Your task to perform on an android device: turn smart compose on in the gmail app Image 0: 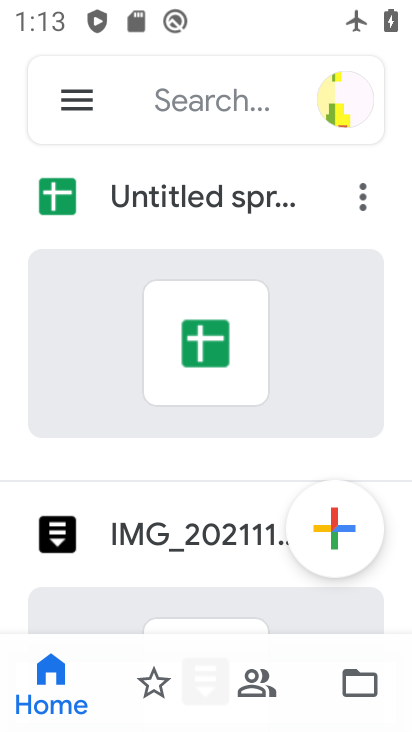
Step 0: press home button
Your task to perform on an android device: turn smart compose on in the gmail app Image 1: 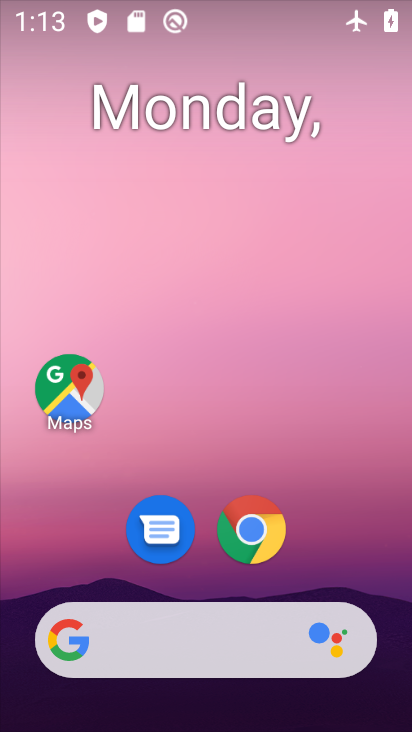
Step 1: drag from (375, 443) to (368, 86)
Your task to perform on an android device: turn smart compose on in the gmail app Image 2: 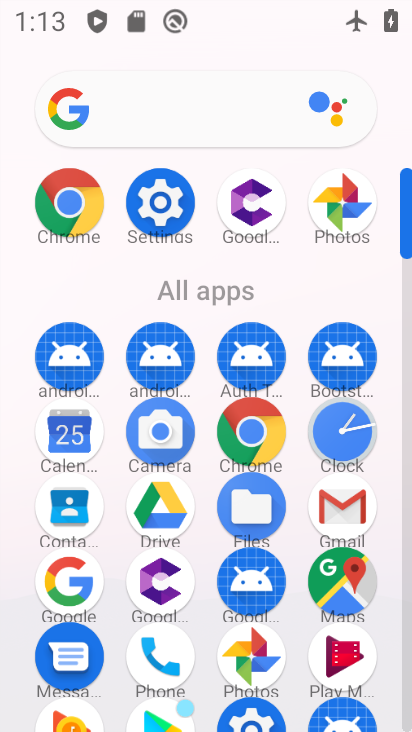
Step 2: click (331, 496)
Your task to perform on an android device: turn smart compose on in the gmail app Image 3: 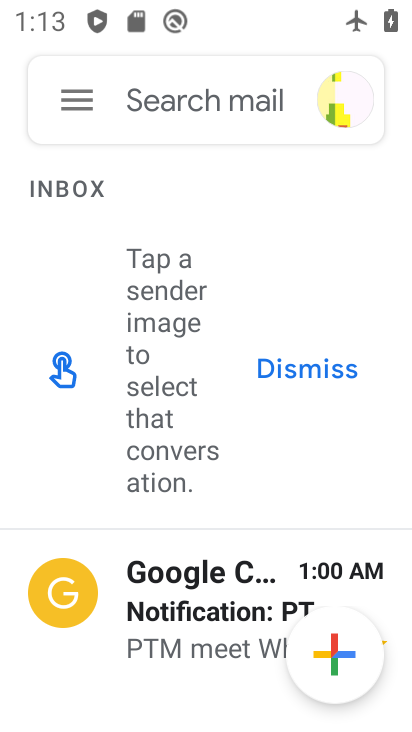
Step 3: click (69, 99)
Your task to perform on an android device: turn smart compose on in the gmail app Image 4: 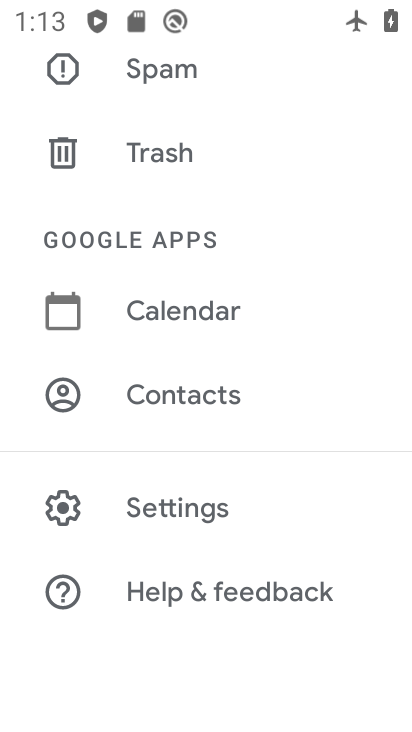
Step 4: click (173, 499)
Your task to perform on an android device: turn smart compose on in the gmail app Image 5: 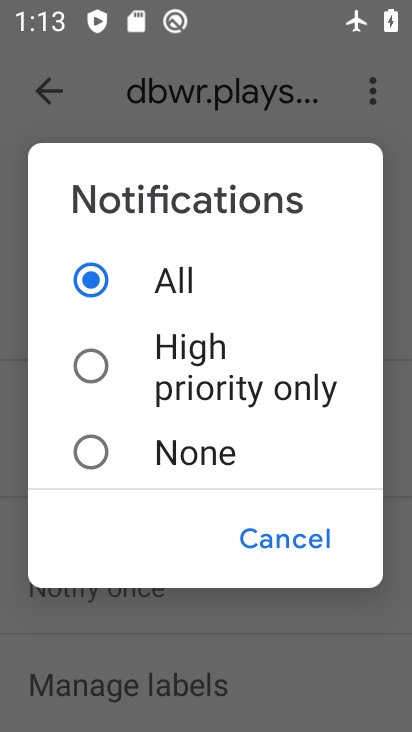
Step 5: click (336, 588)
Your task to perform on an android device: turn smart compose on in the gmail app Image 6: 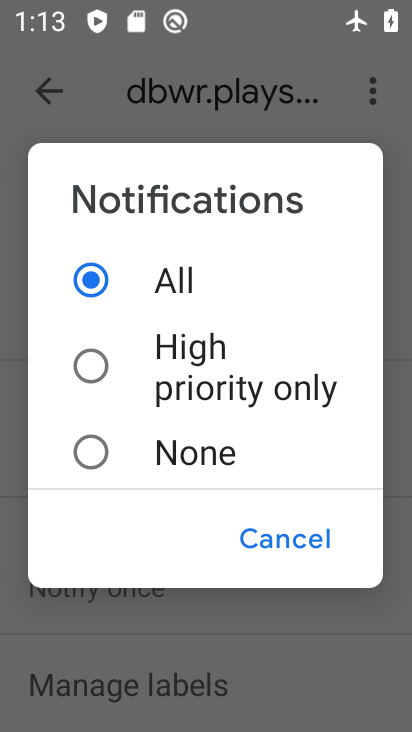
Step 6: click (343, 608)
Your task to perform on an android device: turn smart compose on in the gmail app Image 7: 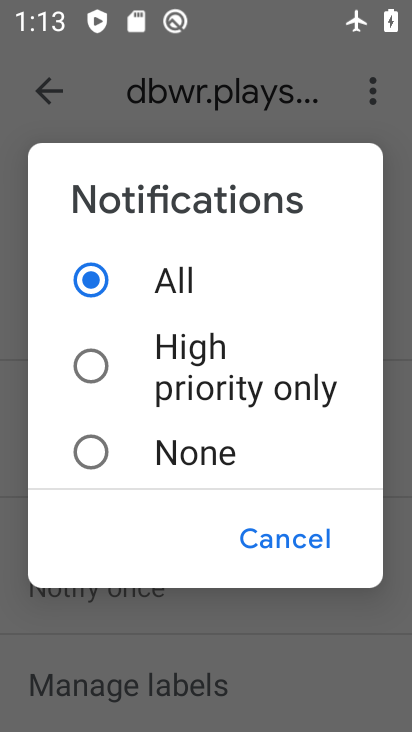
Step 7: click (312, 542)
Your task to perform on an android device: turn smart compose on in the gmail app Image 8: 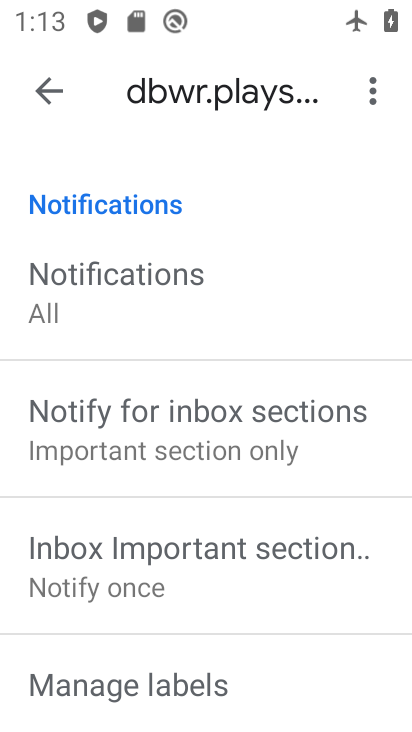
Step 8: task complete